Your task to perform on an android device: Open Amazon Image 0: 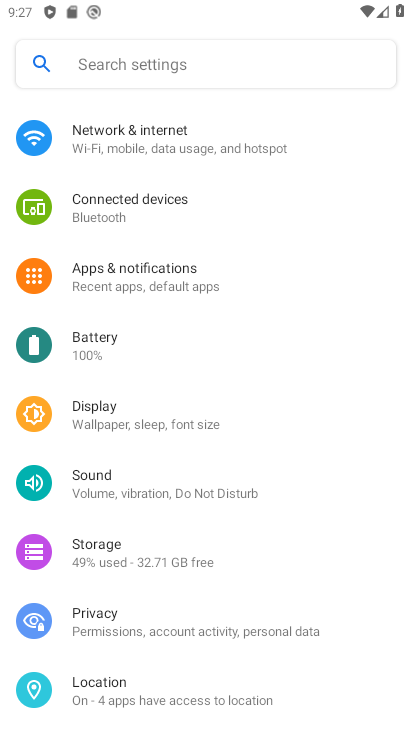
Step 0: press home button
Your task to perform on an android device: Open Amazon Image 1: 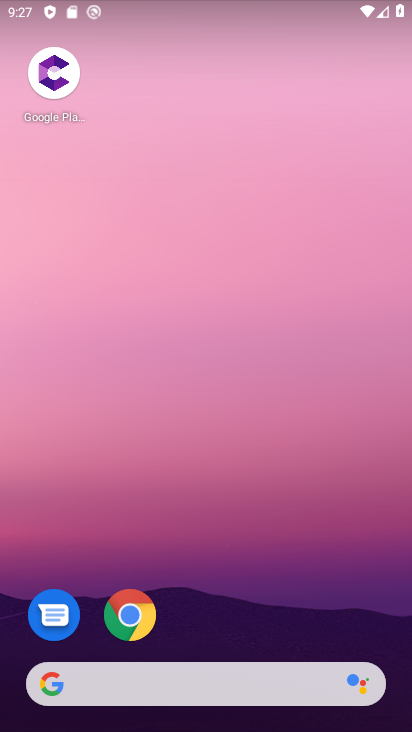
Step 1: click (133, 618)
Your task to perform on an android device: Open Amazon Image 2: 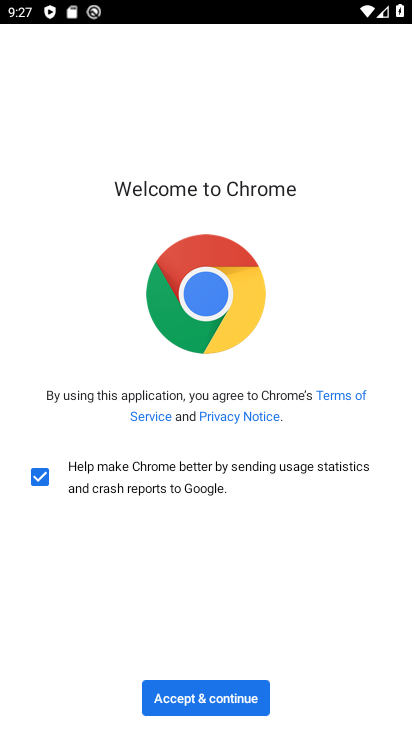
Step 2: click (211, 699)
Your task to perform on an android device: Open Amazon Image 3: 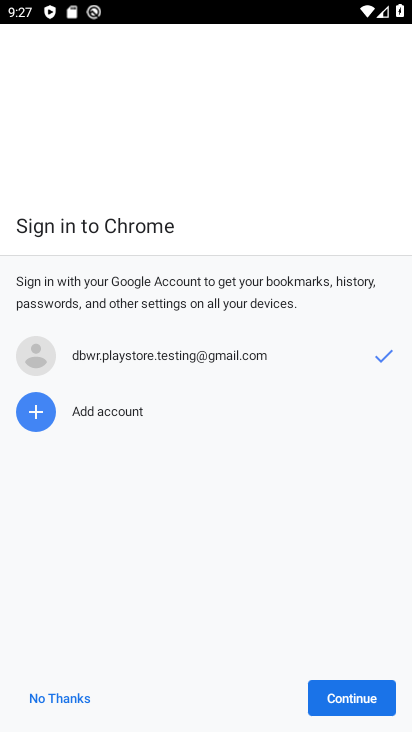
Step 3: click (355, 697)
Your task to perform on an android device: Open Amazon Image 4: 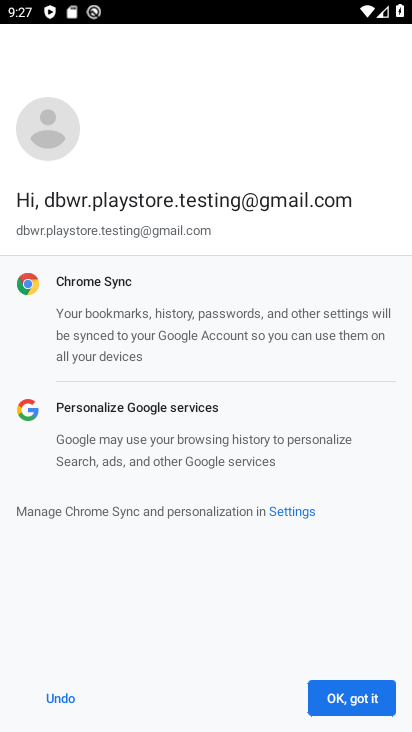
Step 4: click (354, 697)
Your task to perform on an android device: Open Amazon Image 5: 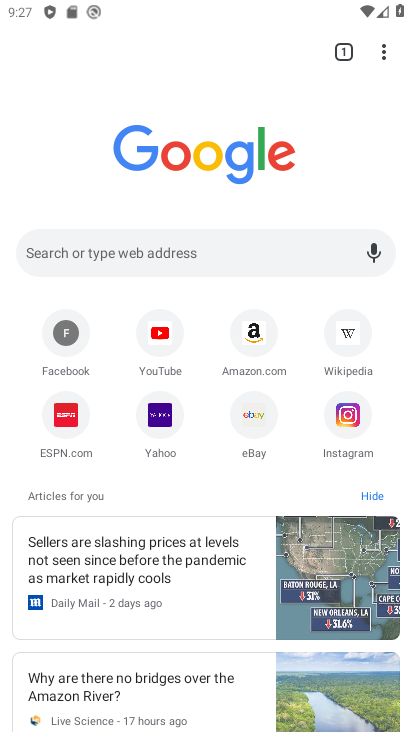
Step 5: click (251, 336)
Your task to perform on an android device: Open Amazon Image 6: 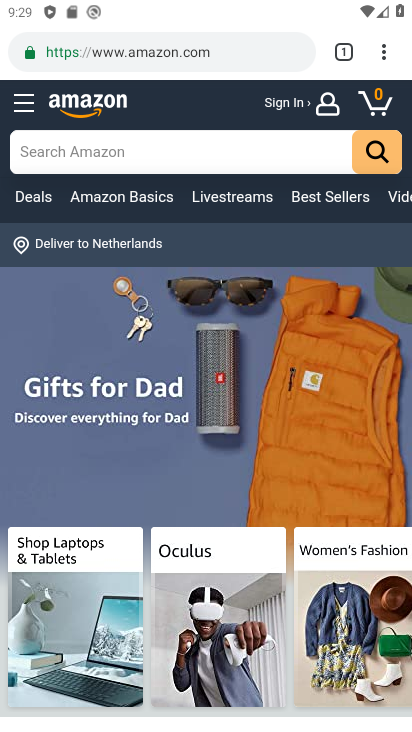
Step 6: task complete